Your task to perform on an android device: turn off location Image 0: 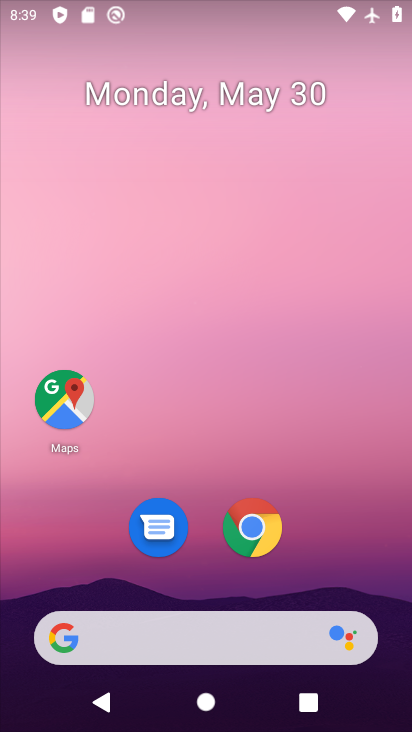
Step 0: drag from (199, 578) to (135, 0)
Your task to perform on an android device: turn off location Image 1: 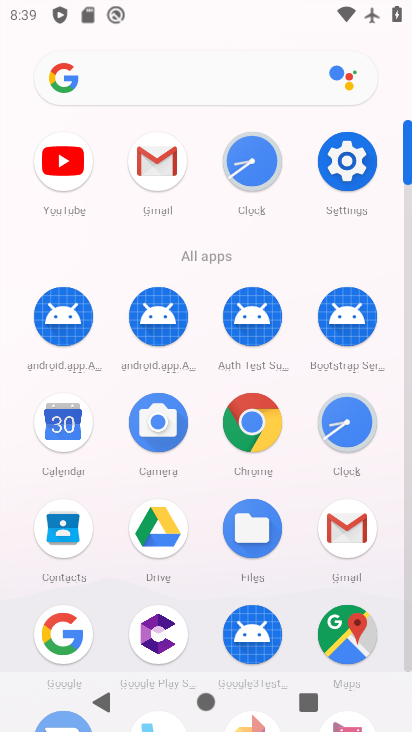
Step 1: click (342, 169)
Your task to perform on an android device: turn off location Image 2: 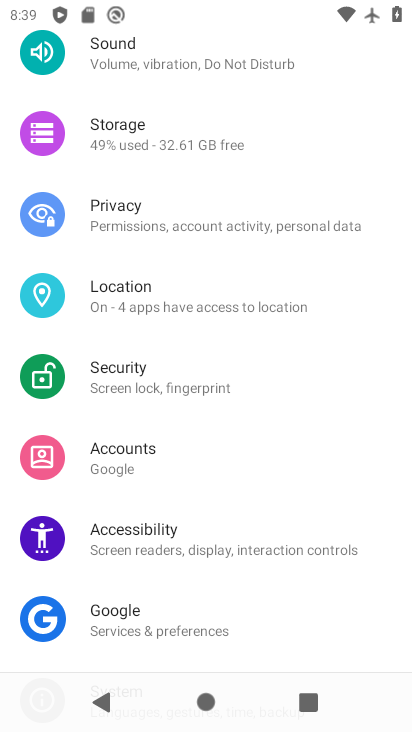
Step 2: click (137, 294)
Your task to perform on an android device: turn off location Image 3: 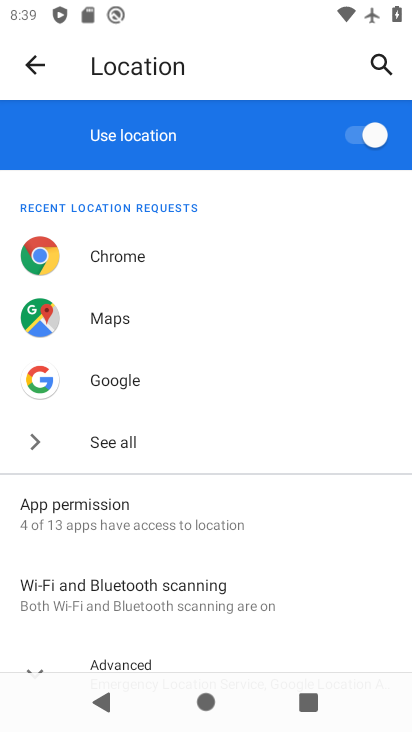
Step 3: click (364, 136)
Your task to perform on an android device: turn off location Image 4: 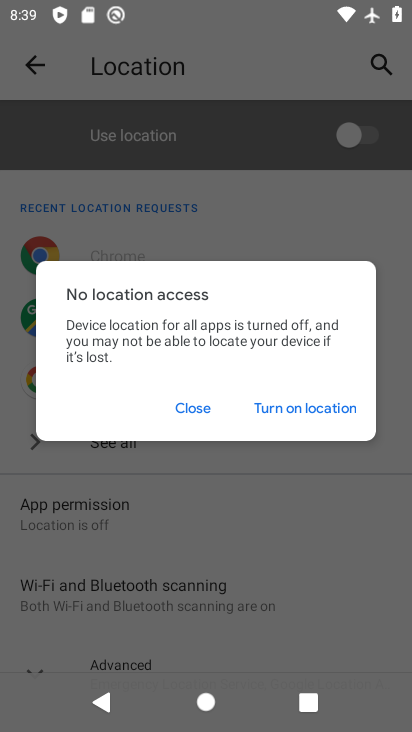
Step 4: task complete